Your task to perform on an android device: turn on the 12-hour format for clock Image 0: 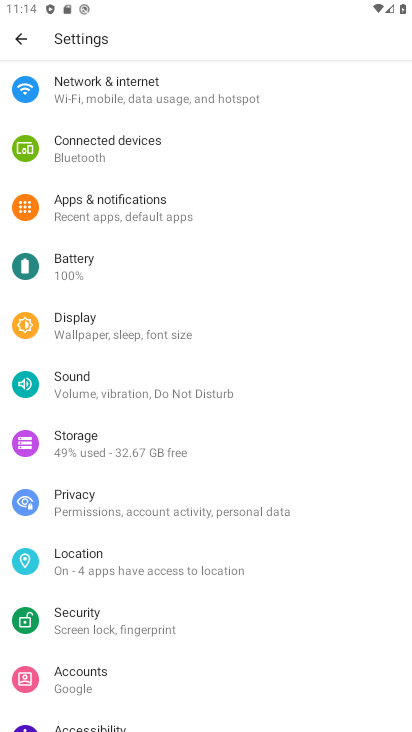
Step 0: press home button
Your task to perform on an android device: turn on the 12-hour format for clock Image 1: 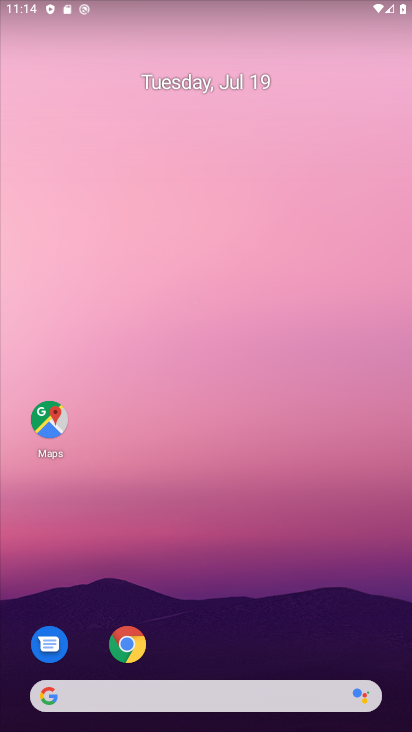
Step 1: drag from (191, 646) to (195, 230)
Your task to perform on an android device: turn on the 12-hour format for clock Image 2: 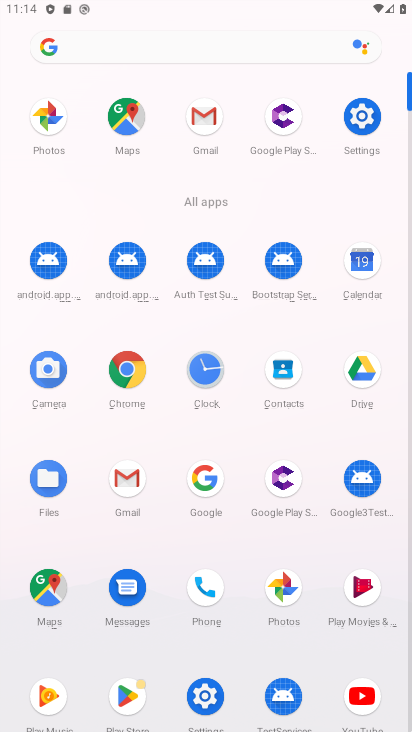
Step 2: click (203, 363)
Your task to perform on an android device: turn on the 12-hour format for clock Image 3: 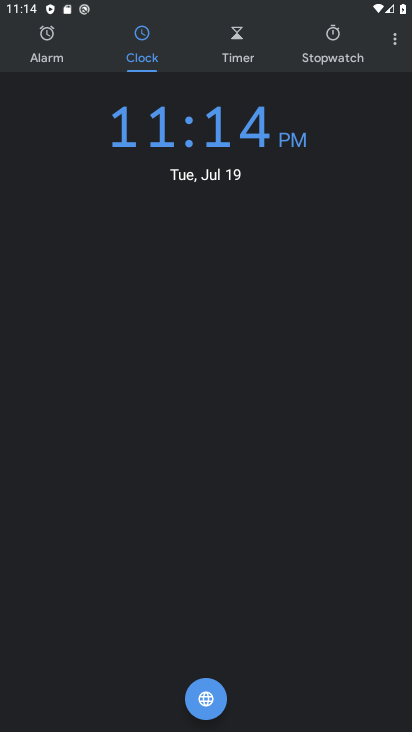
Step 3: click (396, 42)
Your task to perform on an android device: turn on the 12-hour format for clock Image 4: 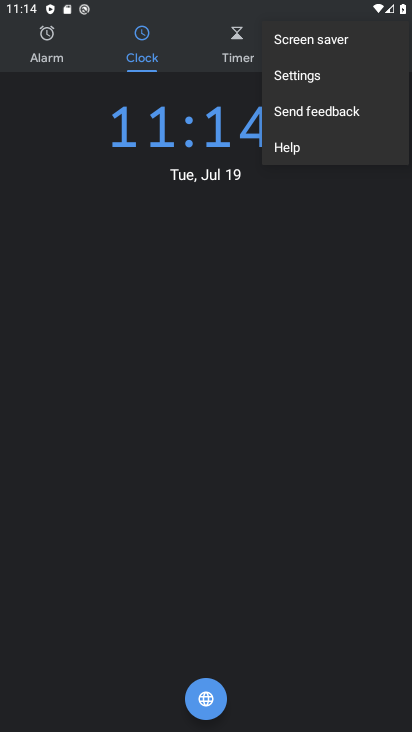
Step 4: click (312, 76)
Your task to perform on an android device: turn on the 12-hour format for clock Image 5: 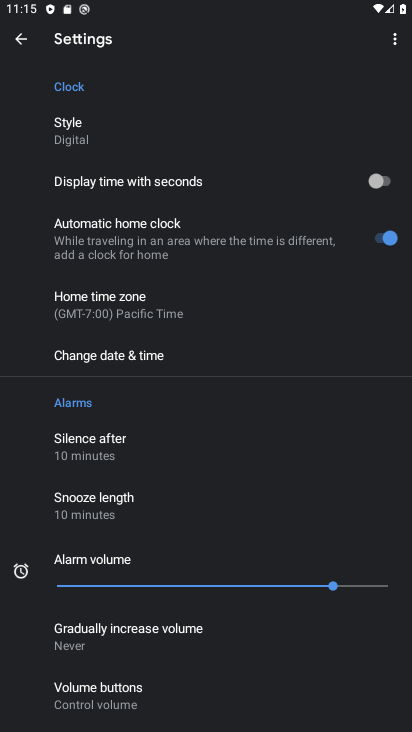
Step 5: drag from (252, 429) to (229, 128)
Your task to perform on an android device: turn on the 12-hour format for clock Image 6: 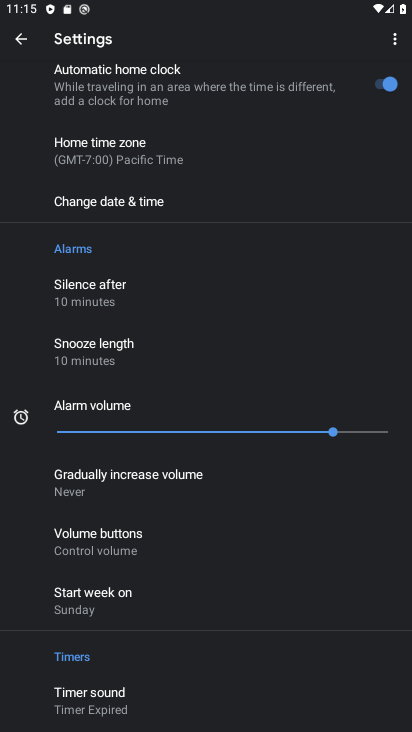
Step 6: click (160, 195)
Your task to perform on an android device: turn on the 12-hour format for clock Image 7: 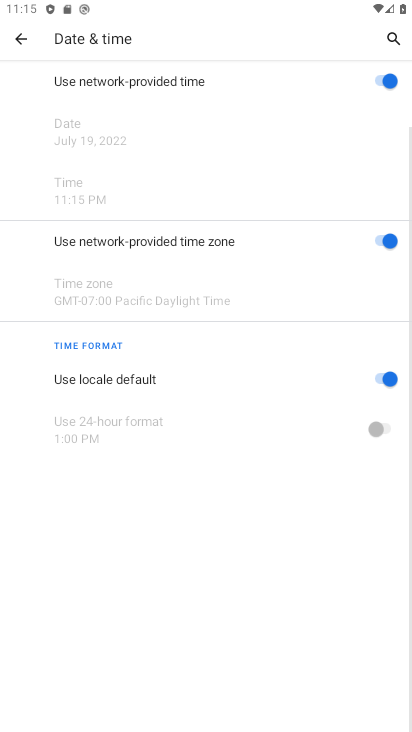
Step 7: task complete